Your task to perform on an android device: Open ESPN.com Image 0: 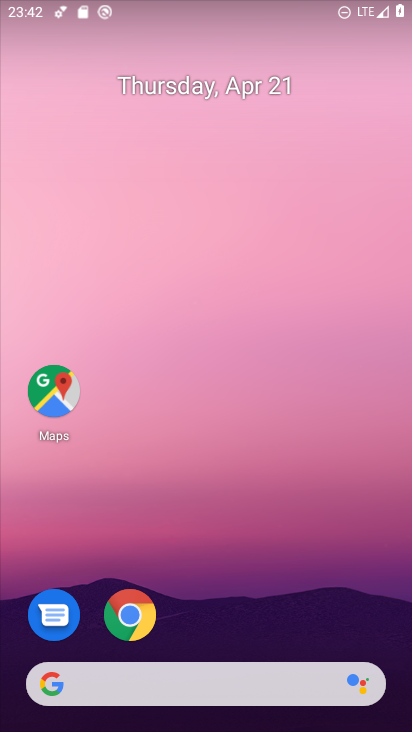
Step 0: drag from (246, 615) to (284, 97)
Your task to perform on an android device: Open ESPN.com Image 1: 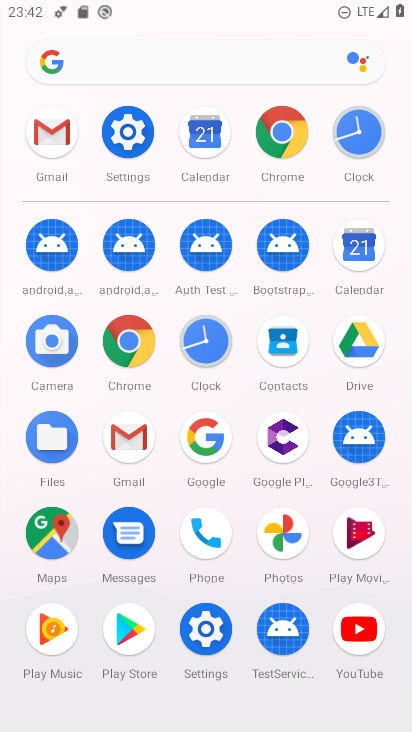
Step 1: click (130, 335)
Your task to perform on an android device: Open ESPN.com Image 2: 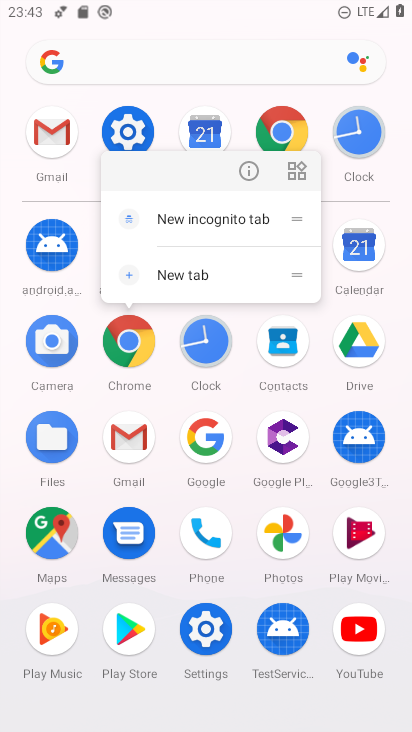
Step 2: click (130, 348)
Your task to perform on an android device: Open ESPN.com Image 3: 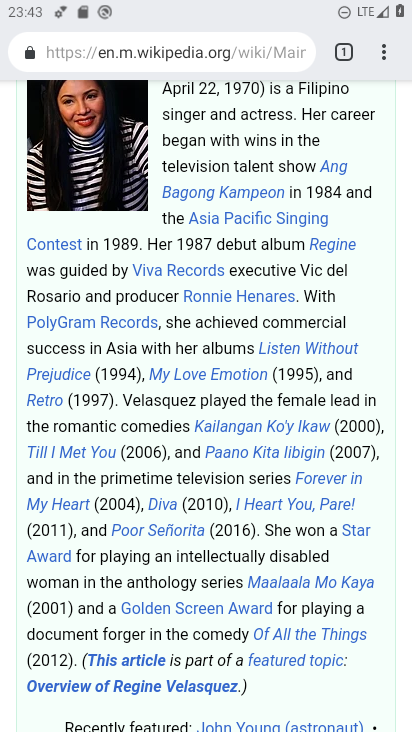
Step 3: click (337, 47)
Your task to perform on an android device: Open ESPN.com Image 4: 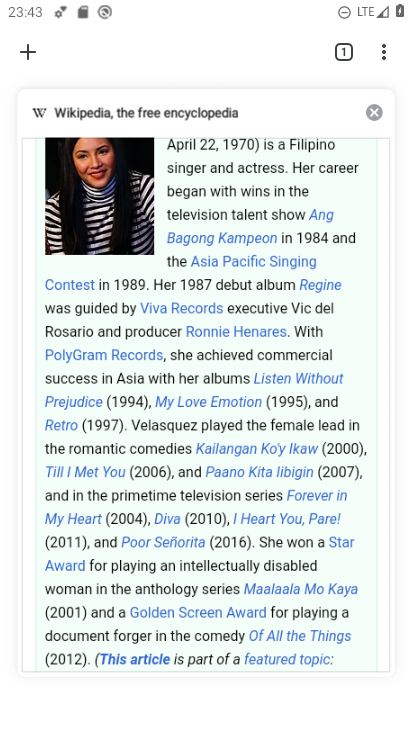
Step 4: click (369, 106)
Your task to perform on an android device: Open ESPN.com Image 5: 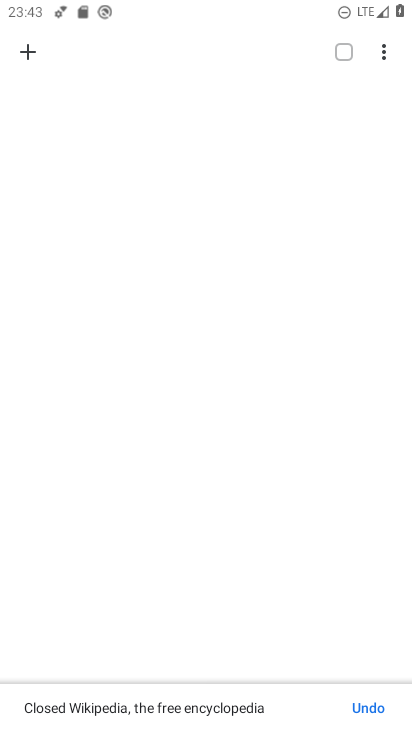
Step 5: click (23, 51)
Your task to perform on an android device: Open ESPN.com Image 6: 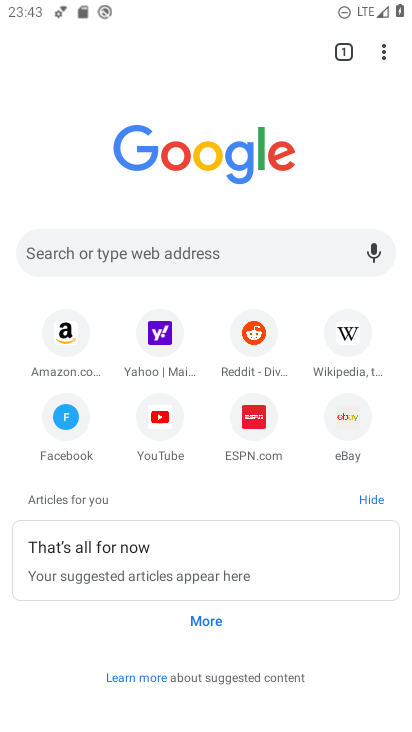
Step 6: click (254, 417)
Your task to perform on an android device: Open ESPN.com Image 7: 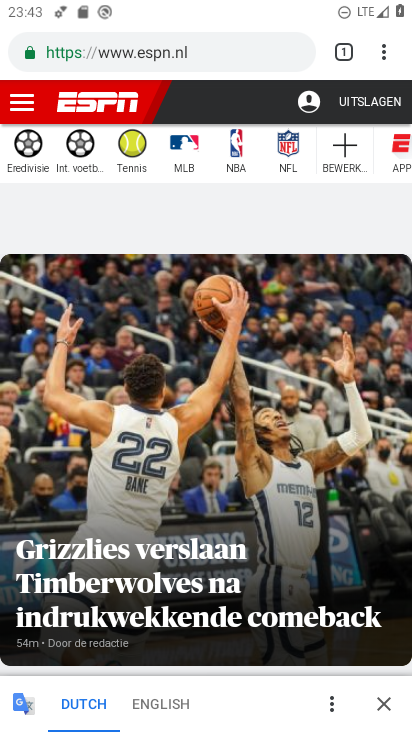
Step 7: task complete